Your task to perform on an android device: move a message to another label in the gmail app Image 0: 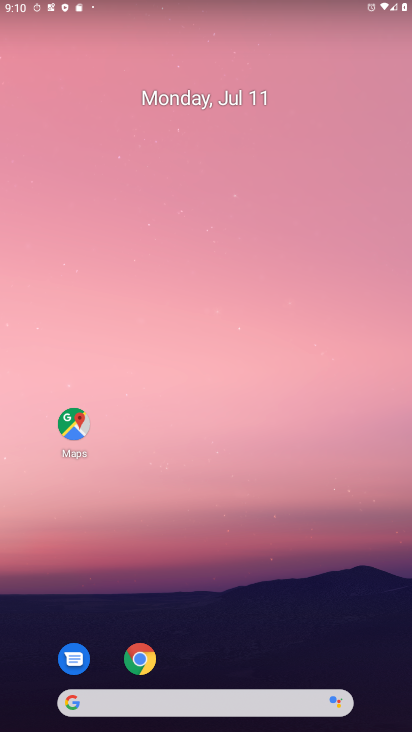
Step 0: drag from (230, 663) to (263, 272)
Your task to perform on an android device: move a message to another label in the gmail app Image 1: 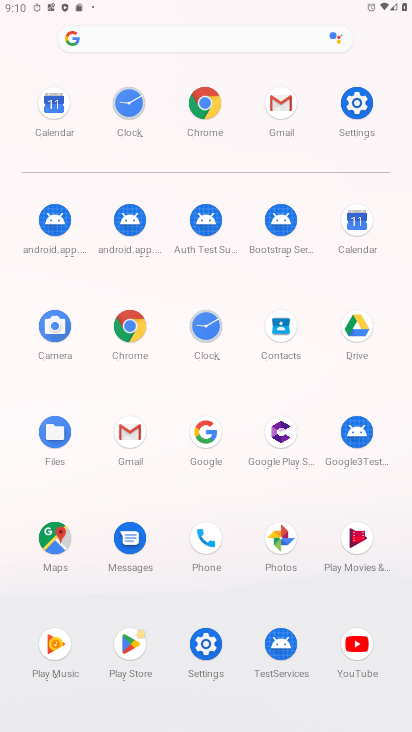
Step 1: click (131, 434)
Your task to perform on an android device: move a message to another label in the gmail app Image 2: 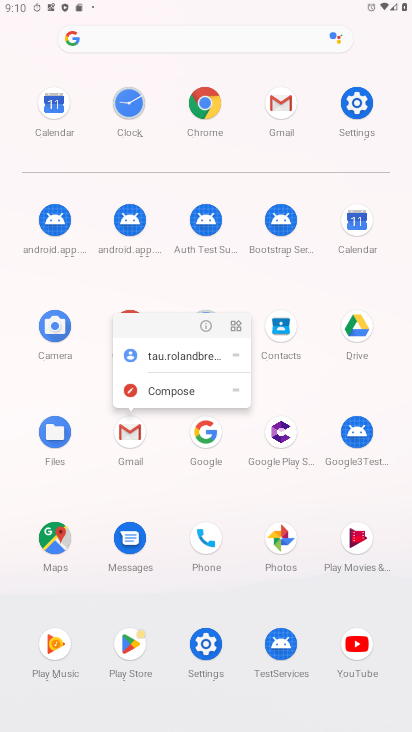
Step 2: click (203, 322)
Your task to perform on an android device: move a message to another label in the gmail app Image 3: 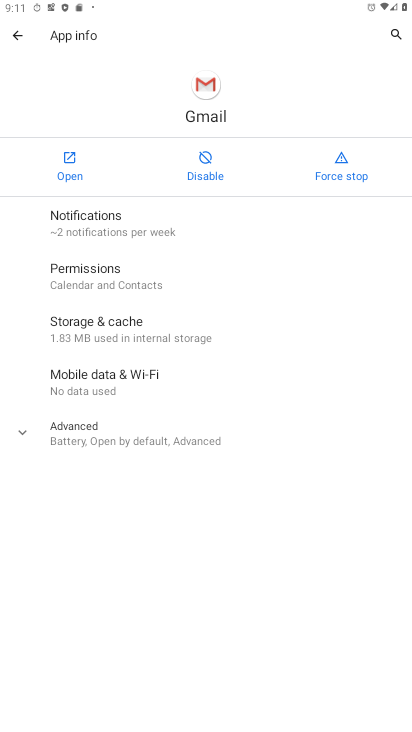
Step 3: click (69, 164)
Your task to perform on an android device: move a message to another label in the gmail app Image 4: 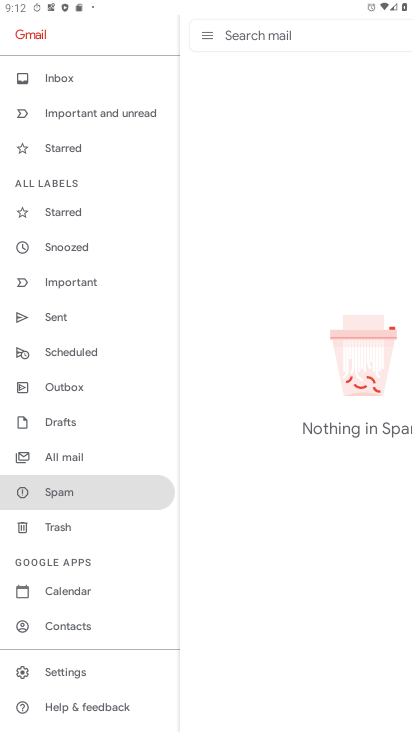
Step 4: drag from (133, 635) to (102, 188)
Your task to perform on an android device: move a message to another label in the gmail app Image 5: 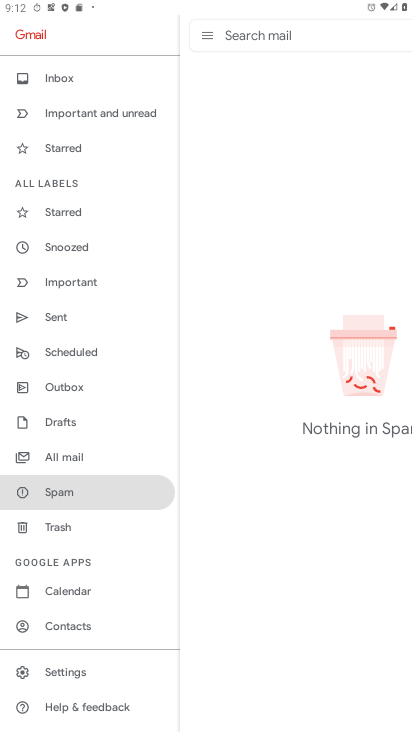
Step 5: click (100, 70)
Your task to perform on an android device: move a message to another label in the gmail app Image 6: 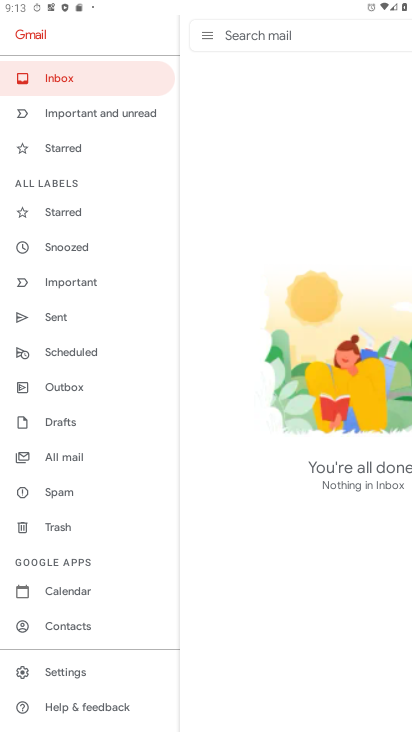
Step 6: task complete